Your task to perform on an android device: turn on airplane mode Image 0: 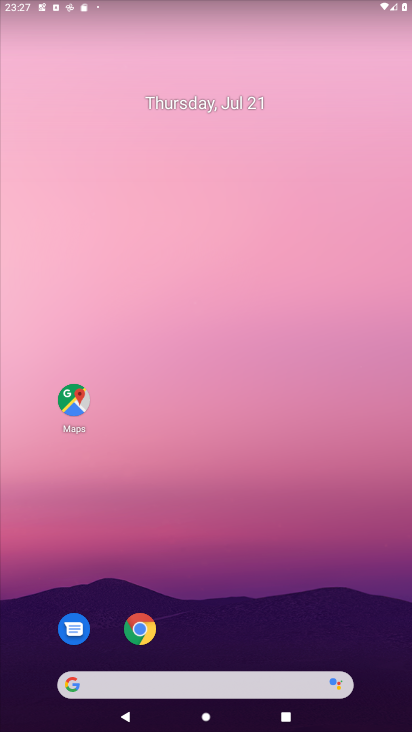
Step 0: drag from (256, 540) to (263, 46)
Your task to perform on an android device: turn on airplane mode Image 1: 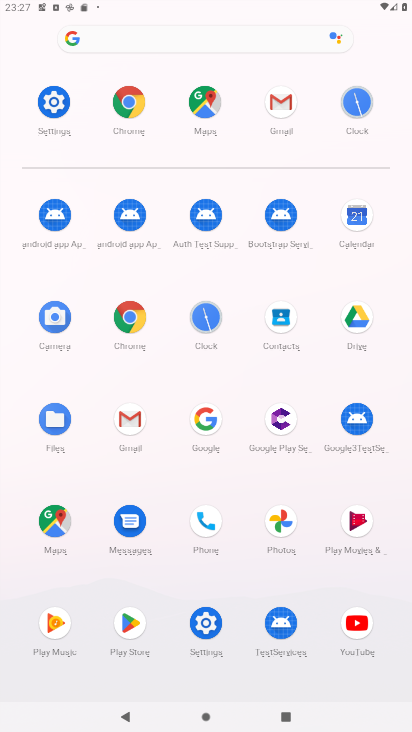
Step 1: click (56, 118)
Your task to perform on an android device: turn on airplane mode Image 2: 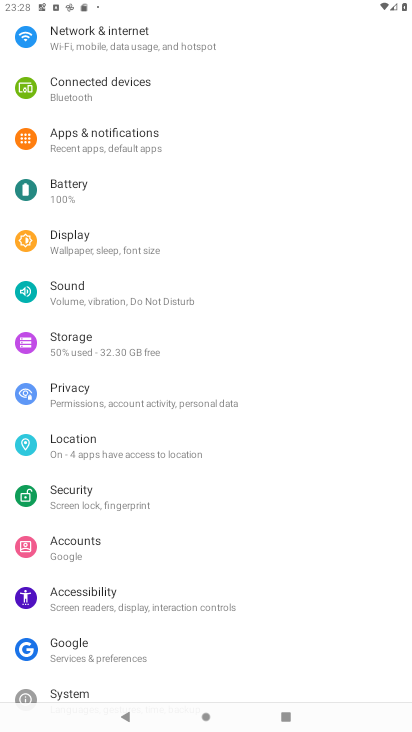
Step 2: drag from (167, 129) to (103, 540)
Your task to perform on an android device: turn on airplane mode Image 3: 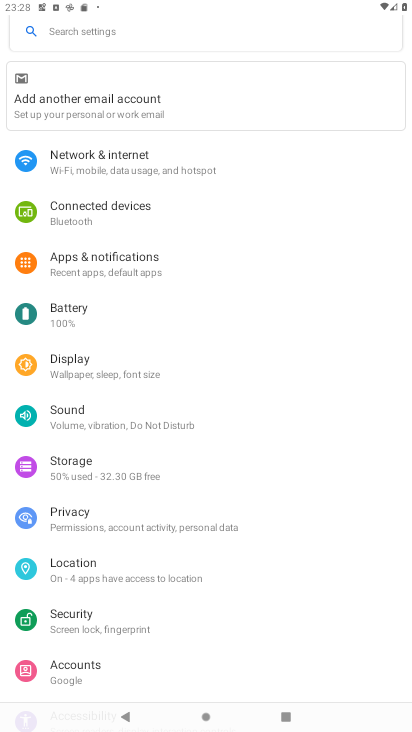
Step 3: click (136, 170)
Your task to perform on an android device: turn on airplane mode Image 4: 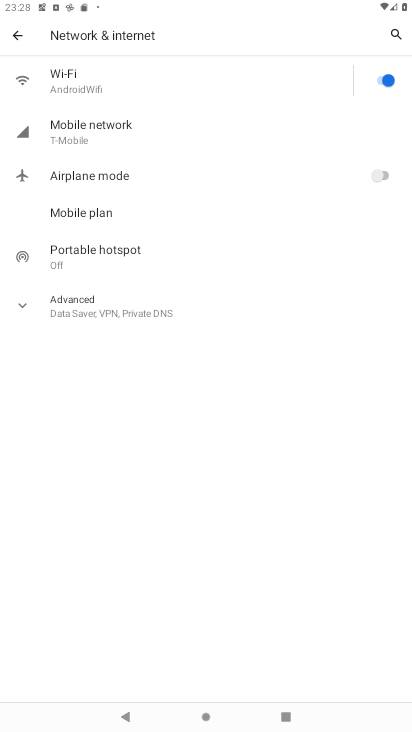
Step 4: click (373, 174)
Your task to perform on an android device: turn on airplane mode Image 5: 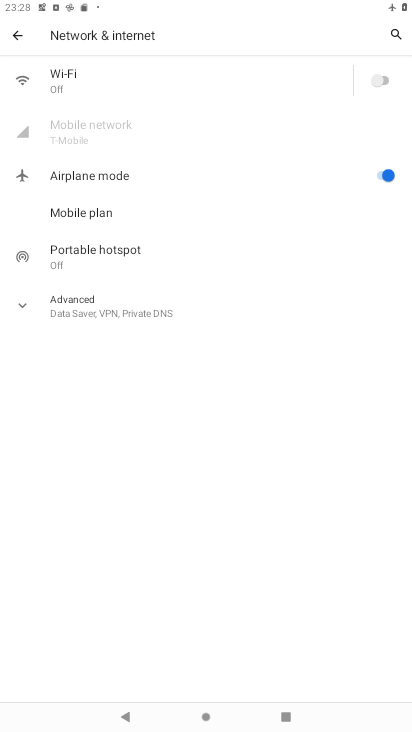
Step 5: task complete